Your task to perform on an android device: Turn off the flashlight Image 0: 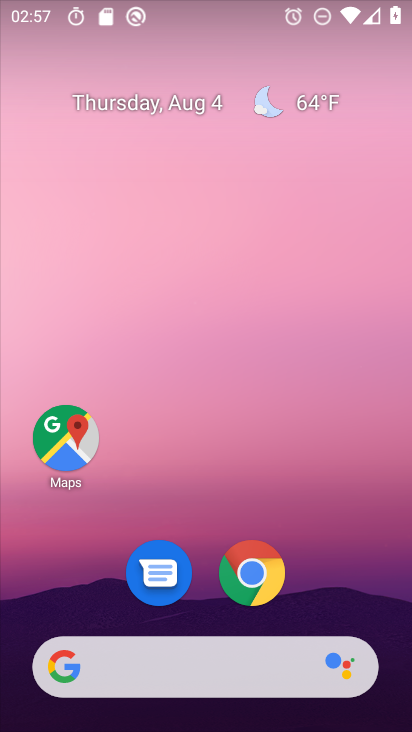
Step 0: drag from (332, 532) to (291, 105)
Your task to perform on an android device: Turn off the flashlight Image 1: 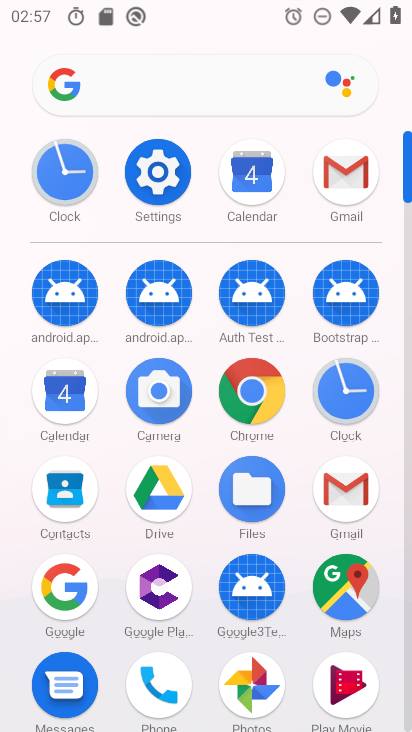
Step 1: click (174, 158)
Your task to perform on an android device: Turn off the flashlight Image 2: 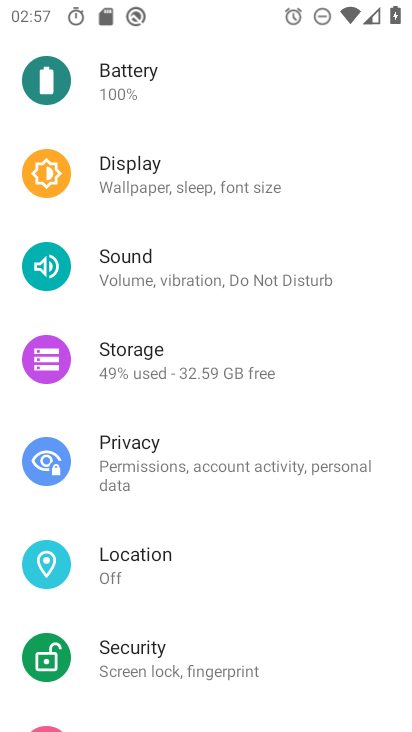
Step 2: drag from (212, 564) to (268, 155)
Your task to perform on an android device: Turn off the flashlight Image 3: 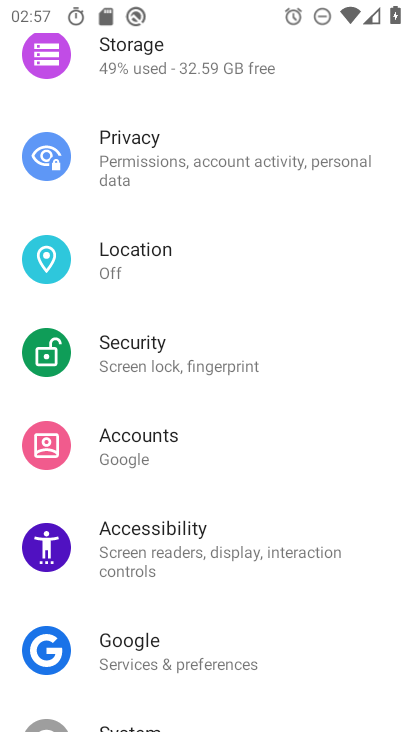
Step 3: drag from (242, 192) to (276, 658)
Your task to perform on an android device: Turn off the flashlight Image 4: 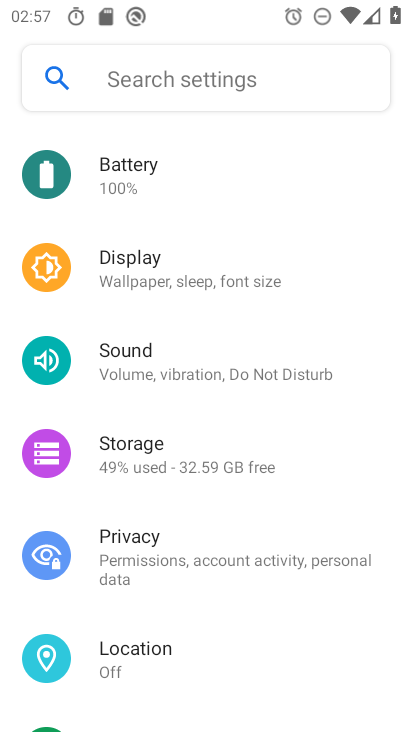
Step 4: drag from (210, 191) to (200, 452)
Your task to perform on an android device: Turn off the flashlight Image 5: 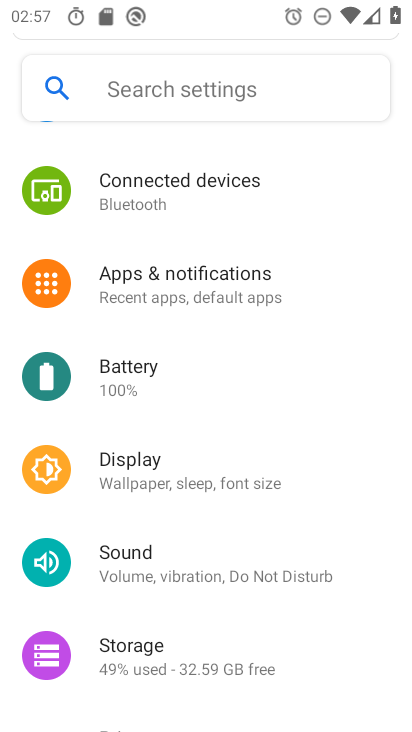
Step 5: click (139, 482)
Your task to perform on an android device: Turn off the flashlight Image 6: 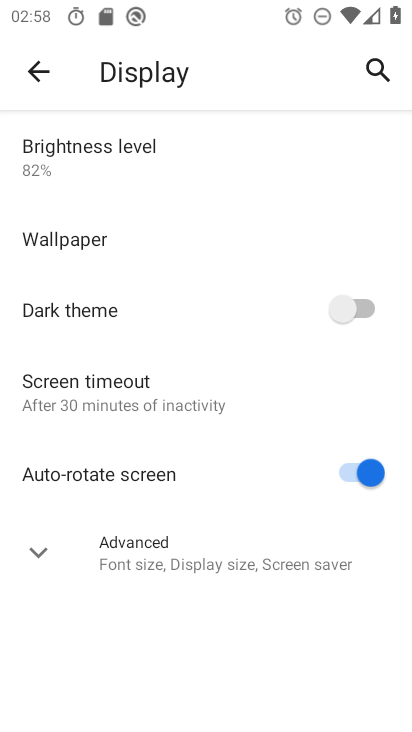
Step 6: click (169, 406)
Your task to perform on an android device: Turn off the flashlight Image 7: 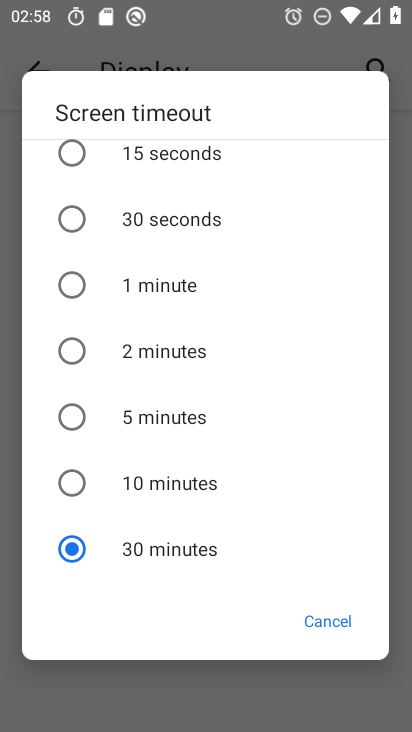
Step 7: task complete